Your task to perform on an android device: turn off wifi Image 0: 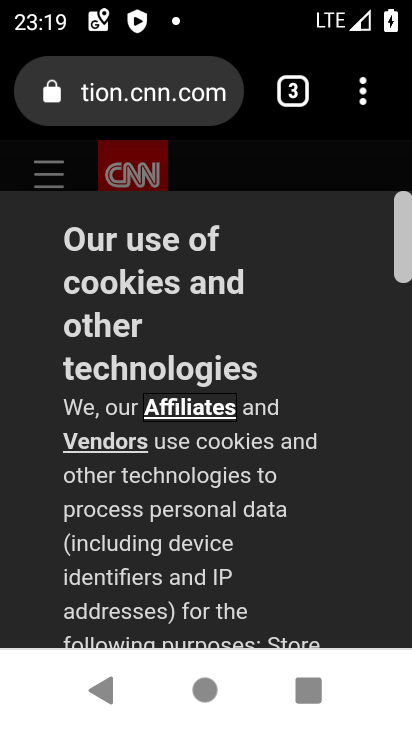
Step 0: press home button
Your task to perform on an android device: turn off wifi Image 1: 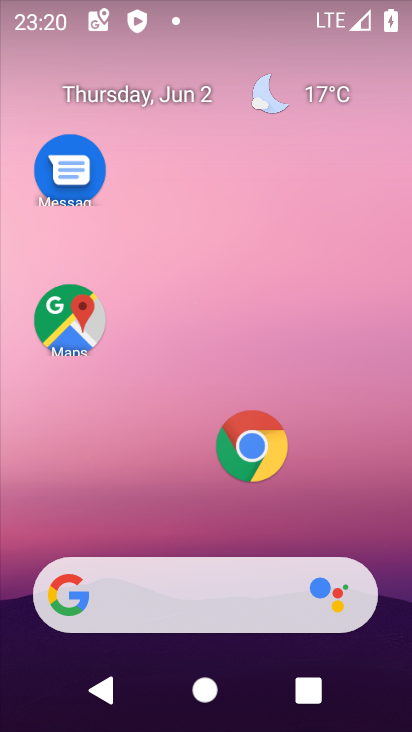
Step 1: task complete